Your task to perform on an android device: turn off javascript in the chrome app Image 0: 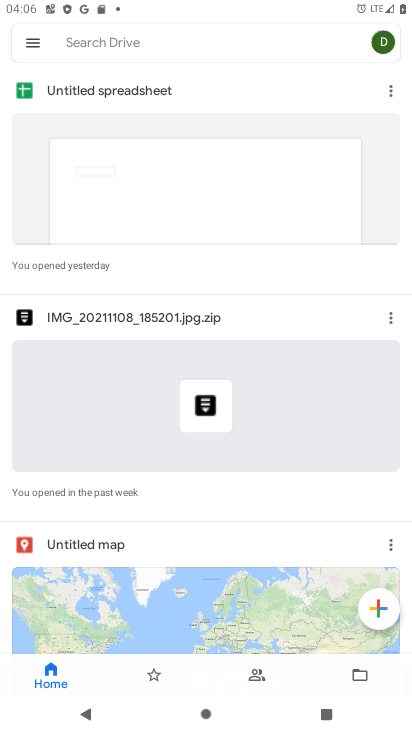
Step 0: press home button
Your task to perform on an android device: turn off javascript in the chrome app Image 1: 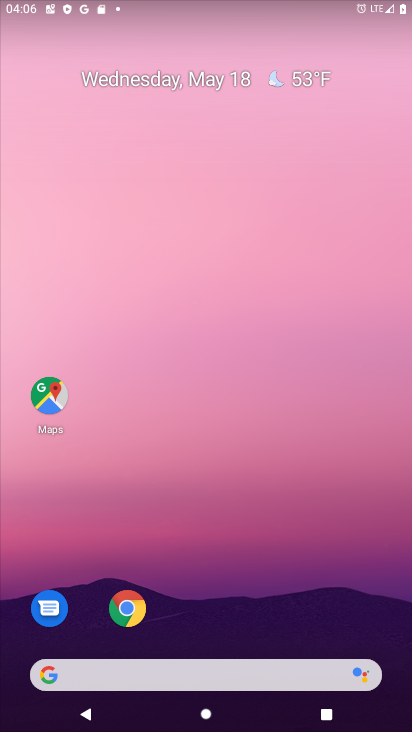
Step 1: click (128, 610)
Your task to perform on an android device: turn off javascript in the chrome app Image 2: 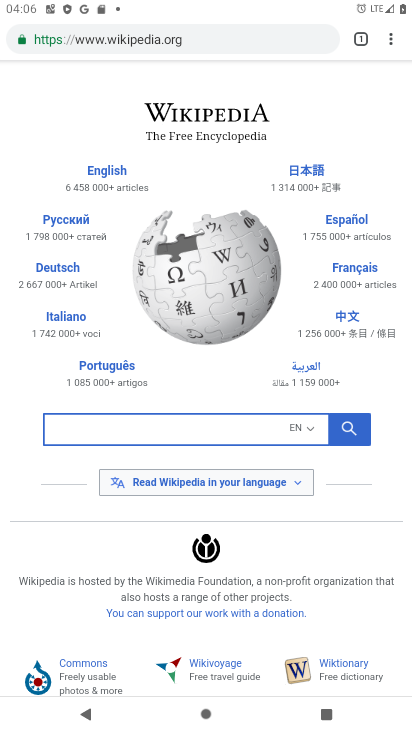
Step 2: click (391, 38)
Your task to perform on an android device: turn off javascript in the chrome app Image 3: 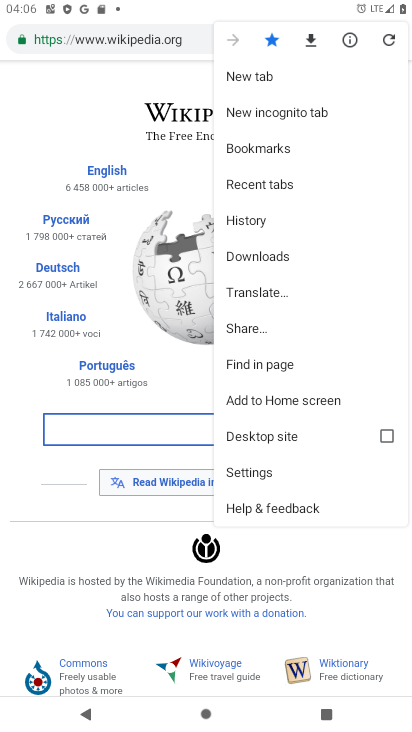
Step 3: click (272, 471)
Your task to perform on an android device: turn off javascript in the chrome app Image 4: 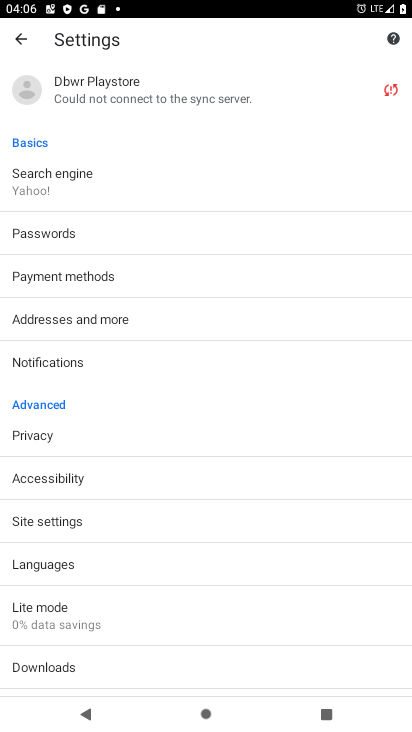
Step 4: click (44, 524)
Your task to perform on an android device: turn off javascript in the chrome app Image 5: 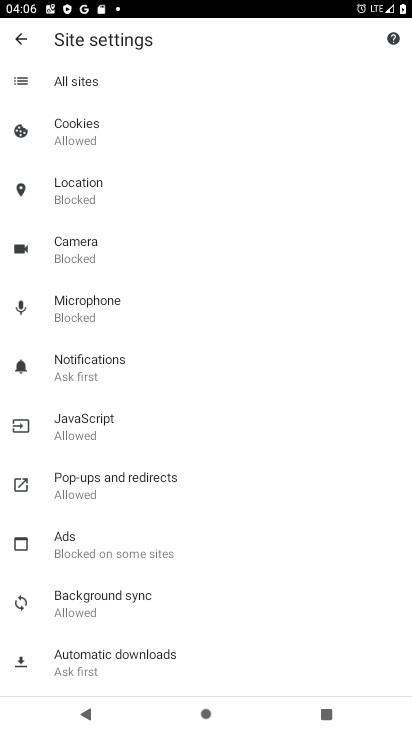
Step 5: click (74, 430)
Your task to perform on an android device: turn off javascript in the chrome app Image 6: 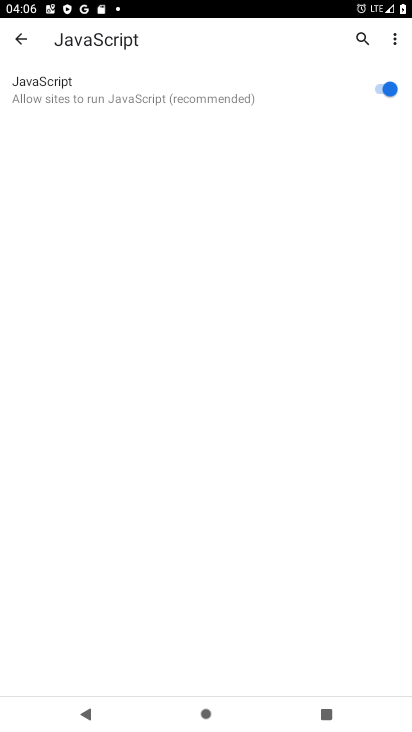
Step 6: click (400, 86)
Your task to perform on an android device: turn off javascript in the chrome app Image 7: 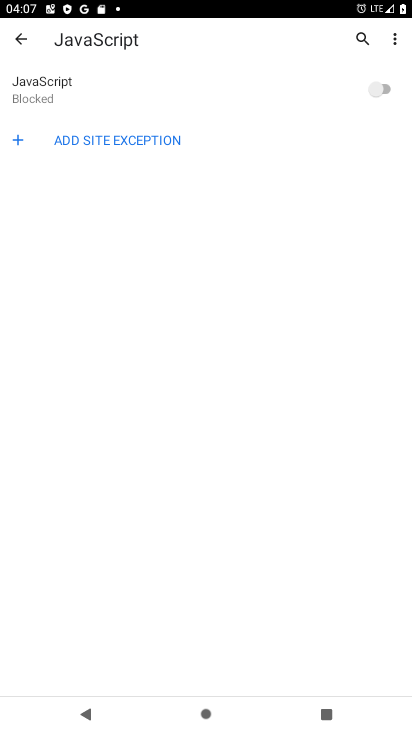
Step 7: task complete